Your task to perform on an android device: Go to wifi settings Image 0: 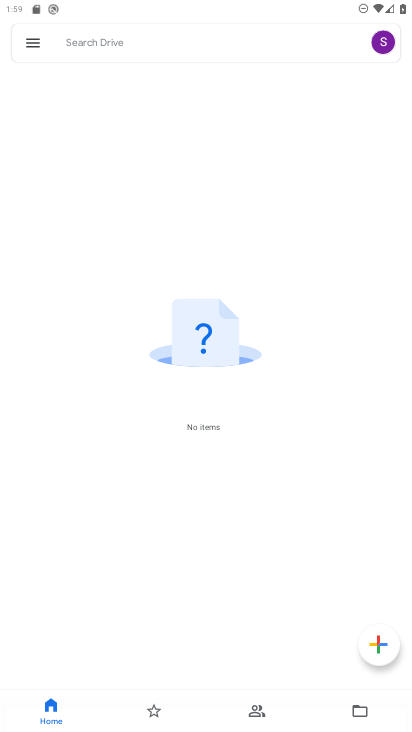
Step 0: press home button
Your task to perform on an android device: Go to wifi settings Image 1: 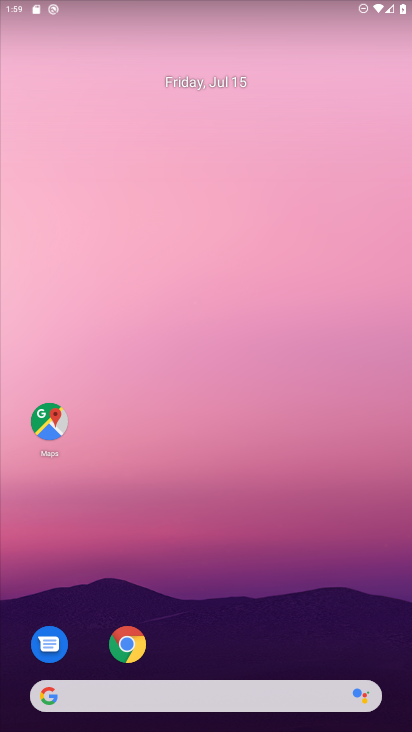
Step 1: drag from (208, 726) to (292, 247)
Your task to perform on an android device: Go to wifi settings Image 2: 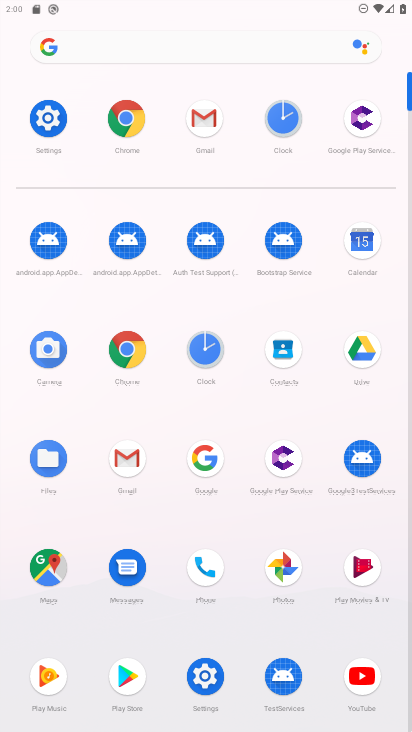
Step 2: click (195, 125)
Your task to perform on an android device: Go to wifi settings Image 3: 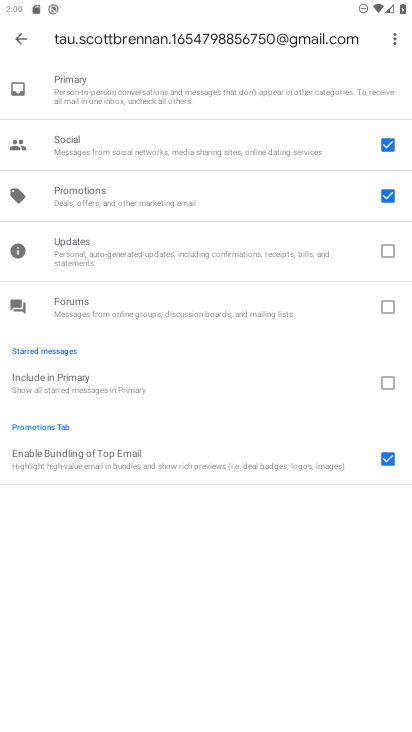
Step 3: drag from (117, 3) to (79, 496)
Your task to perform on an android device: Go to wifi settings Image 4: 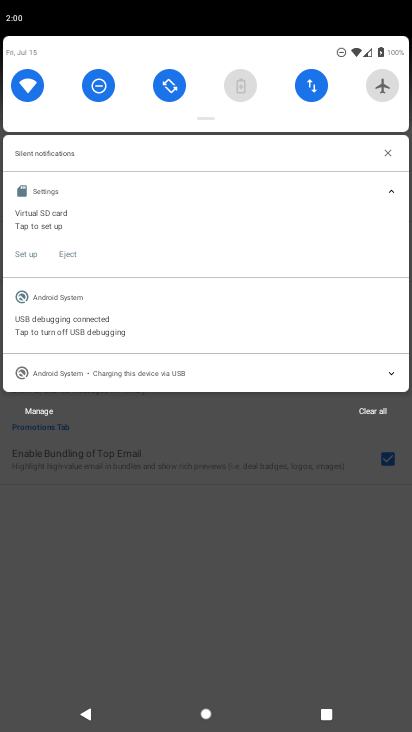
Step 4: click (20, 80)
Your task to perform on an android device: Go to wifi settings Image 5: 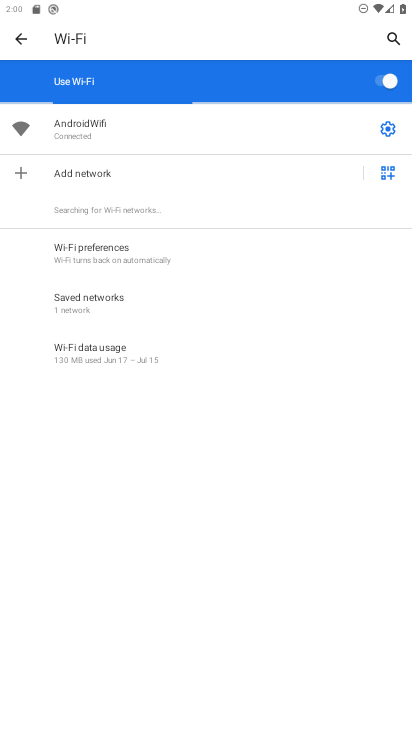
Step 5: task complete